Your task to perform on an android device: Open Google Chrome Image 0: 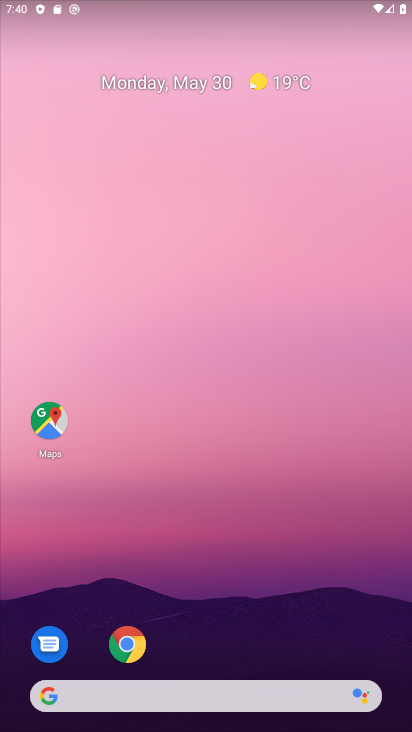
Step 0: click (129, 641)
Your task to perform on an android device: Open Google Chrome Image 1: 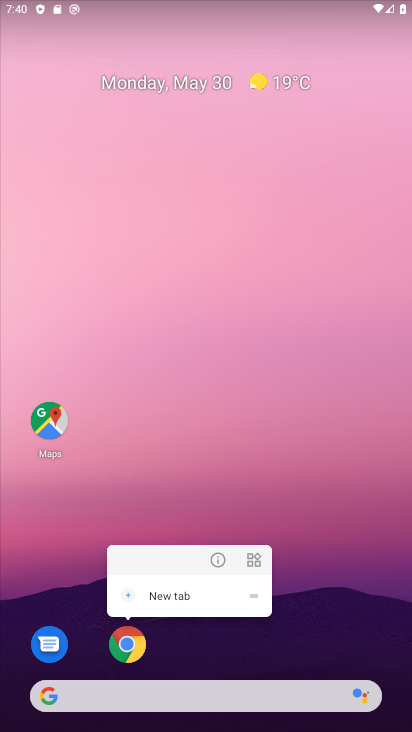
Step 1: click (129, 642)
Your task to perform on an android device: Open Google Chrome Image 2: 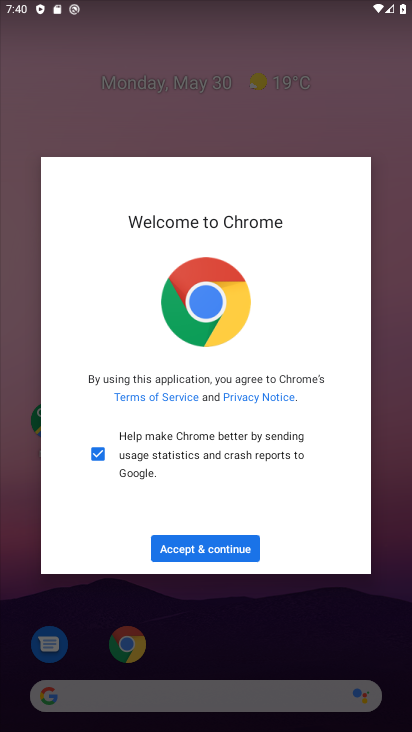
Step 2: click (214, 550)
Your task to perform on an android device: Open Google Chrome Image 3: 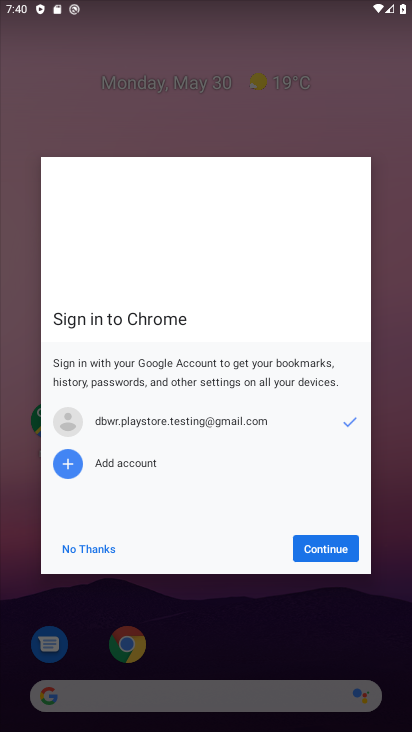
Step 3: click (320, 557)
Your task to perform on an android device: Open Google Chrome Image 4: 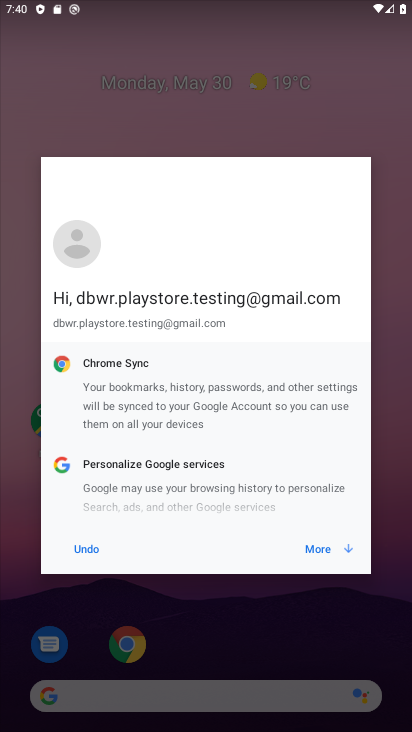
Step 4: click (314, 548)
Your task to perform on an android device: Open Google Chrome Image 5: 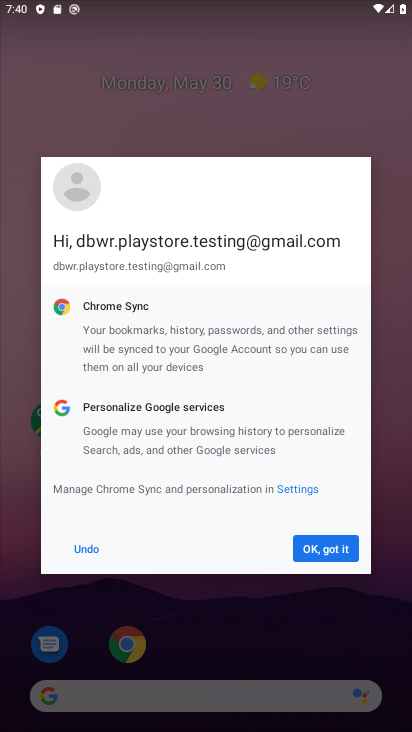
Step 5: click (314, 548)
Your task to perform on an android device: Open Google Chrome Image 6: 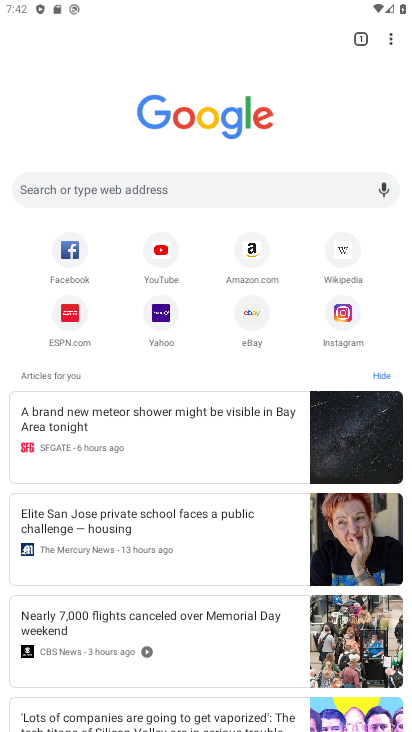
Step 6: task complete